Your task to perform on an android device: turn on notifications settings in the gmail app Image 0: 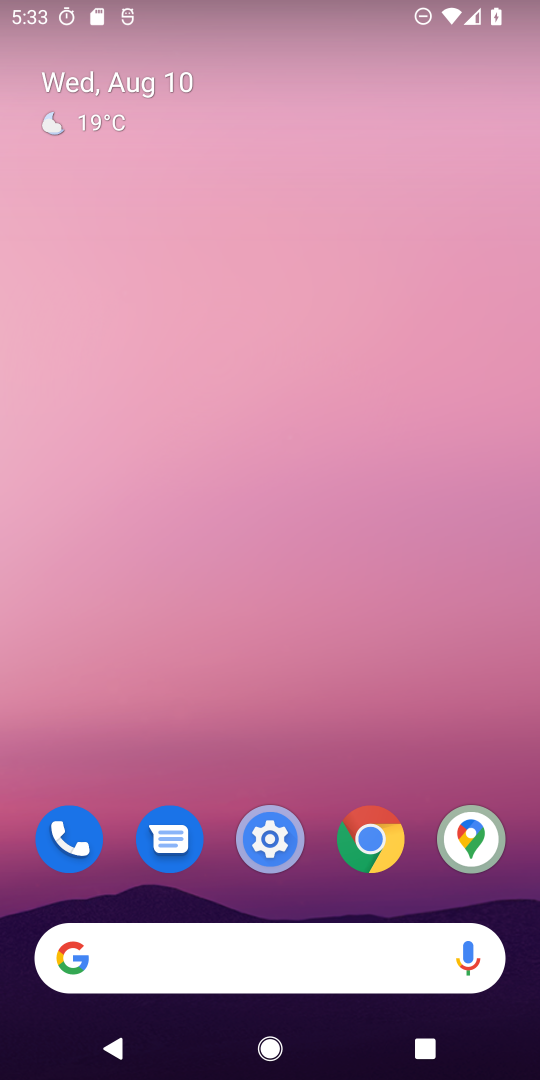
Step 0: drag from (34, 1023) to (155, 556)
Your task to perform on an android device: turn on notifications settings in the gmail app Image 1: 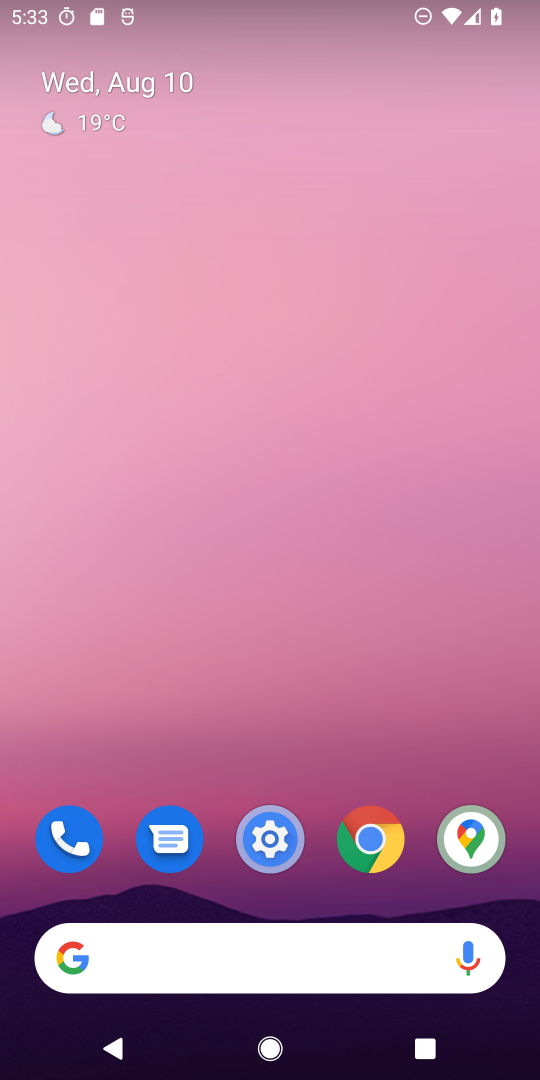
Step 1: drag from (62, 1053) to (141, 410)
Your task to perform on an android device: turn on notifications settings in the gmail app Image 2: 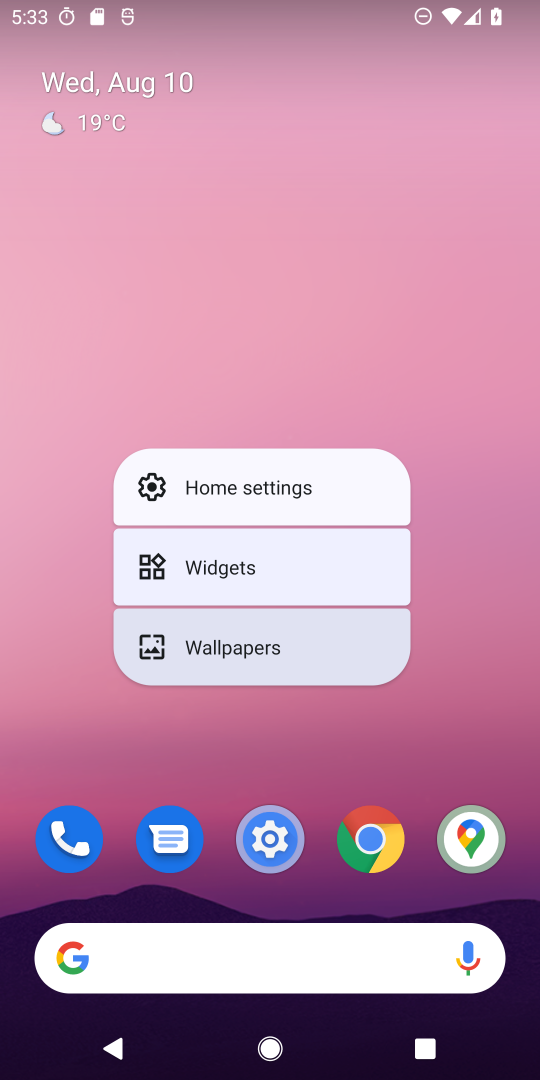
Step 2: drag from (23, 1030) to (168, 336)
Your task to perform on an android device: turn on notifications settings in the gmail app Image 3: 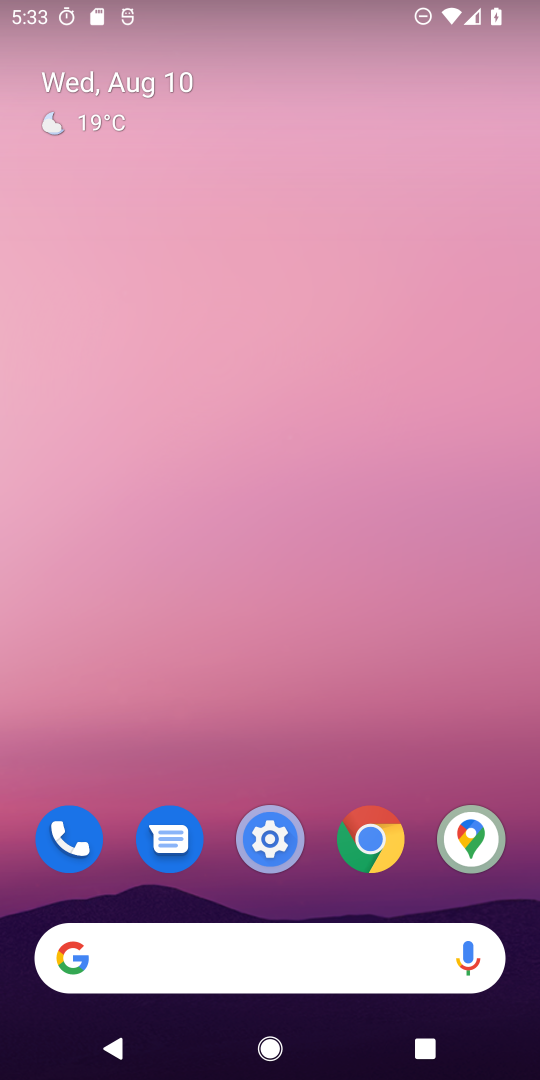
Step 3: drag from (33, 1020) to (149, 378)
Your task to perform on an android device: turn on notifications settings in the gmail app Image 4: 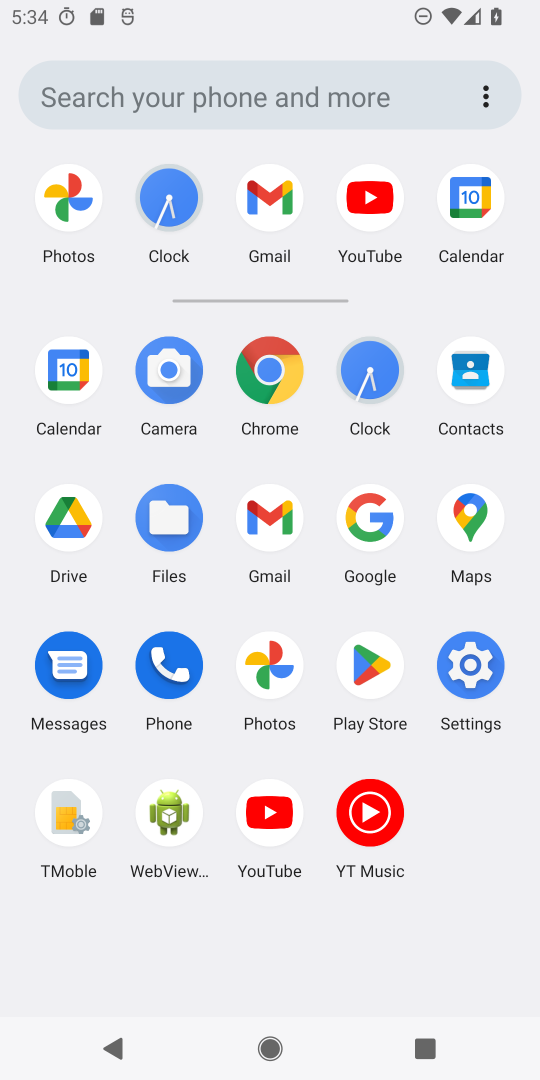
Step 4: click (270, 205)
Your task to perform on an android device: turn on notifications settings in the gmail app Image 5: 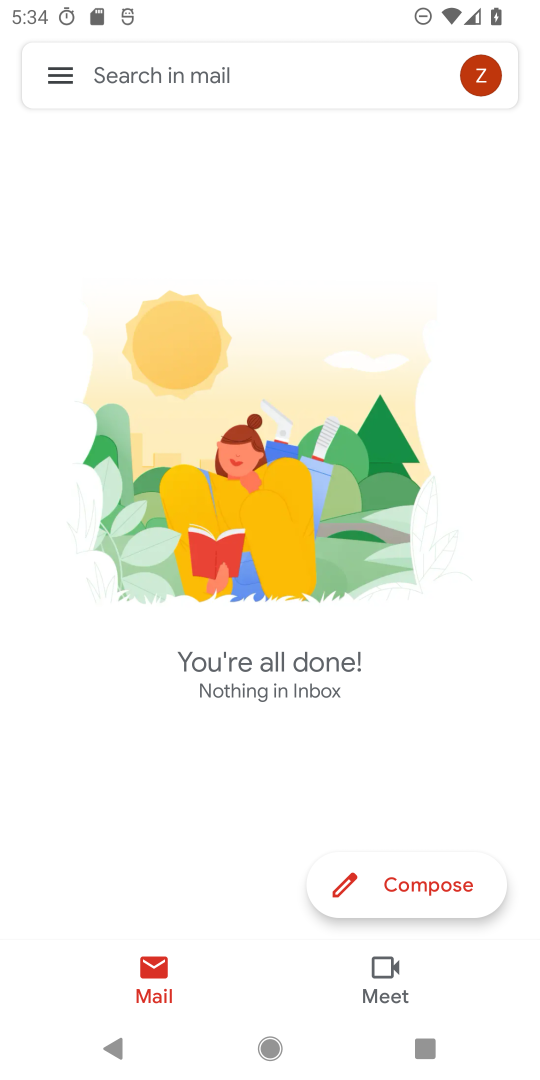
Step 5: click (67, 70)
Your task to perform on an android device: turn on notifications settings in the gmail app Image 6: 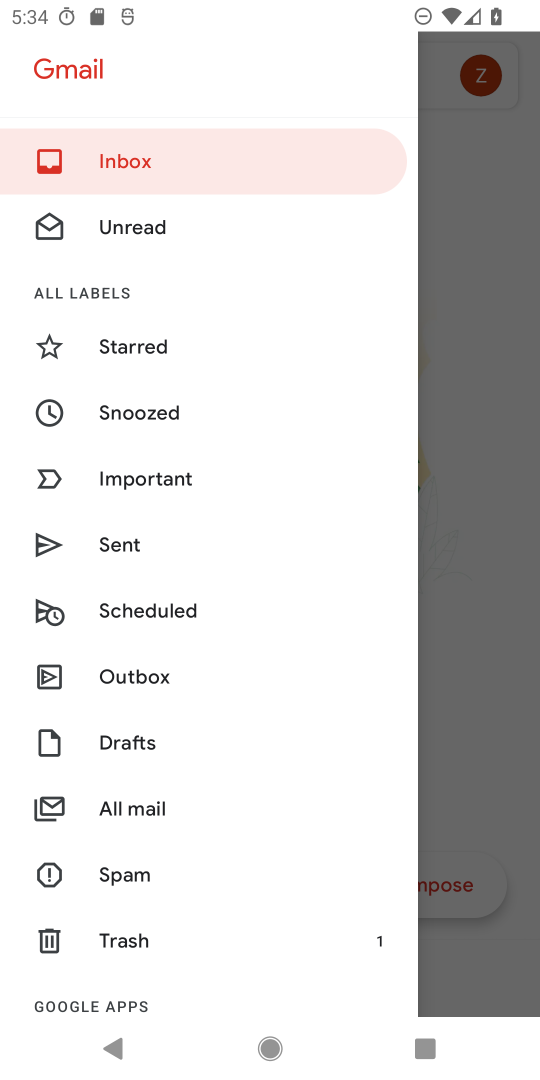
Step 6: drag from (265, 867) to (179, 300)
Your task to perform on an android device: turn on notifications settings in the gmail app Image 7: 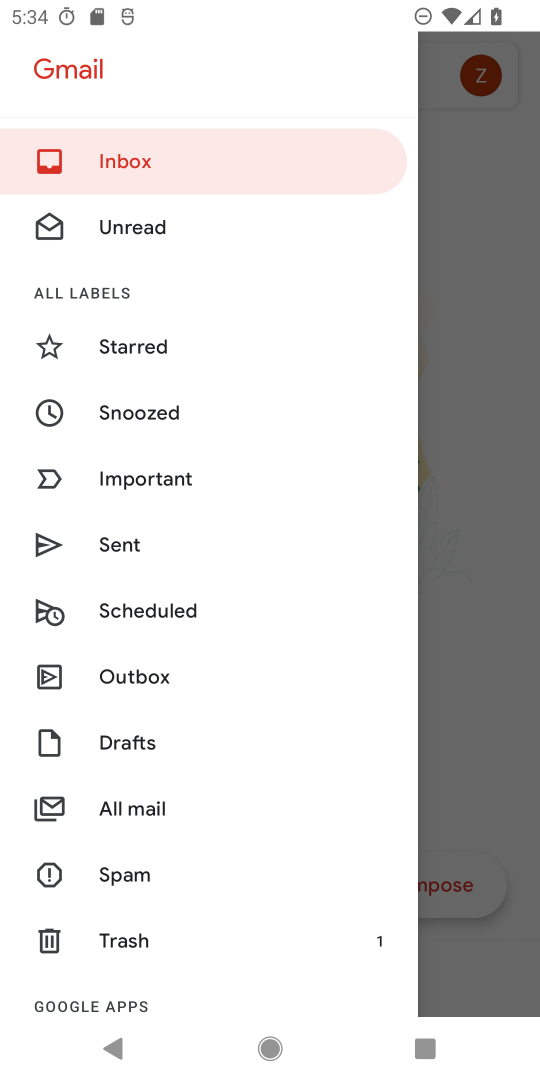
Step 7: drag from (283, 906) to (368, 440)
Your task to perform on an android device: turn on notifications settings in the gmail app Image 8: 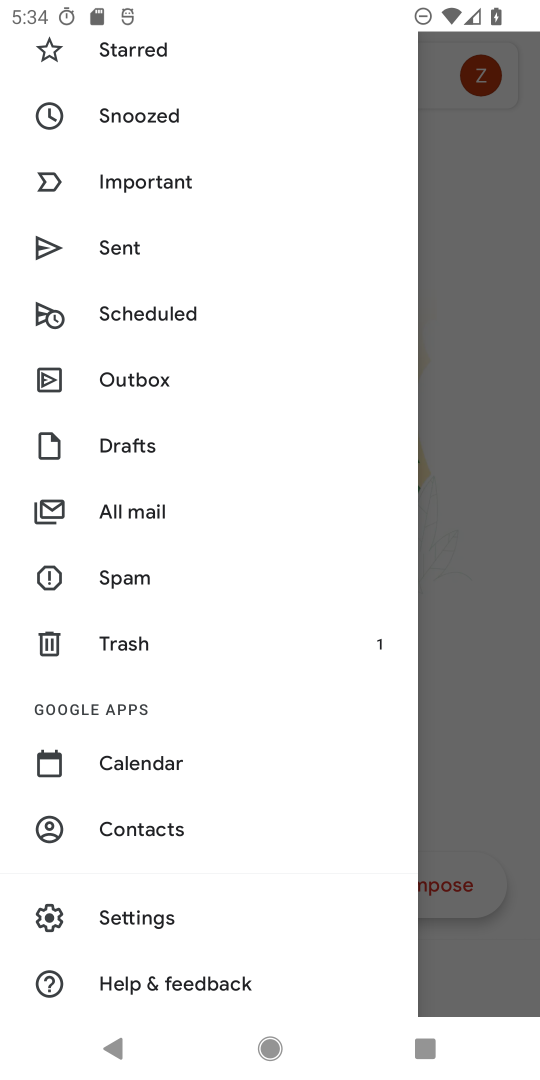
Step 8: click (148, 916)
Your task to perform on an android device: turn on notifications settings in the gmail app Image 9: 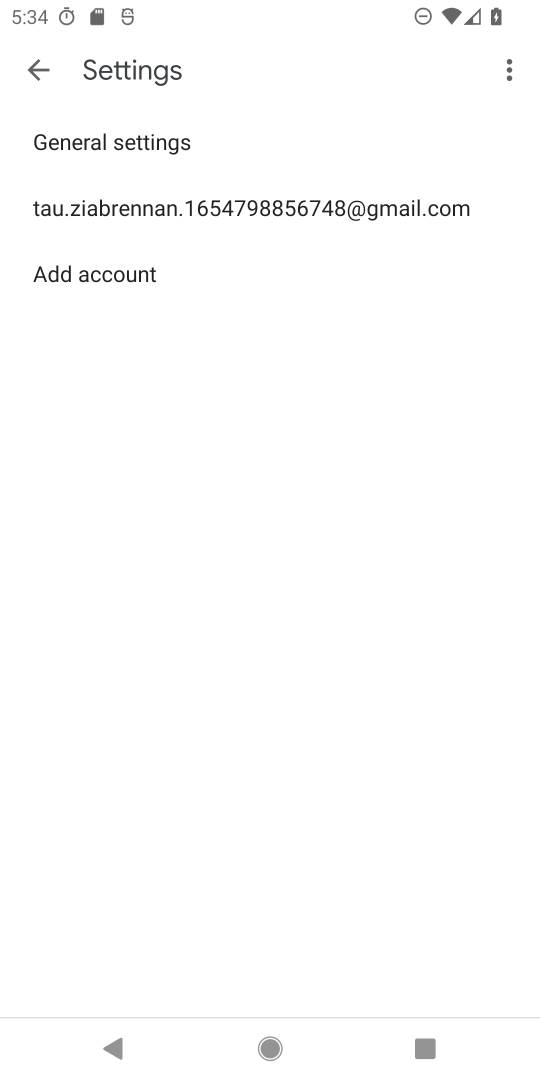
Step 9: click (270, 215)
Your task to perform on an android device: turn on notifications settings in the gmail app Image 10: 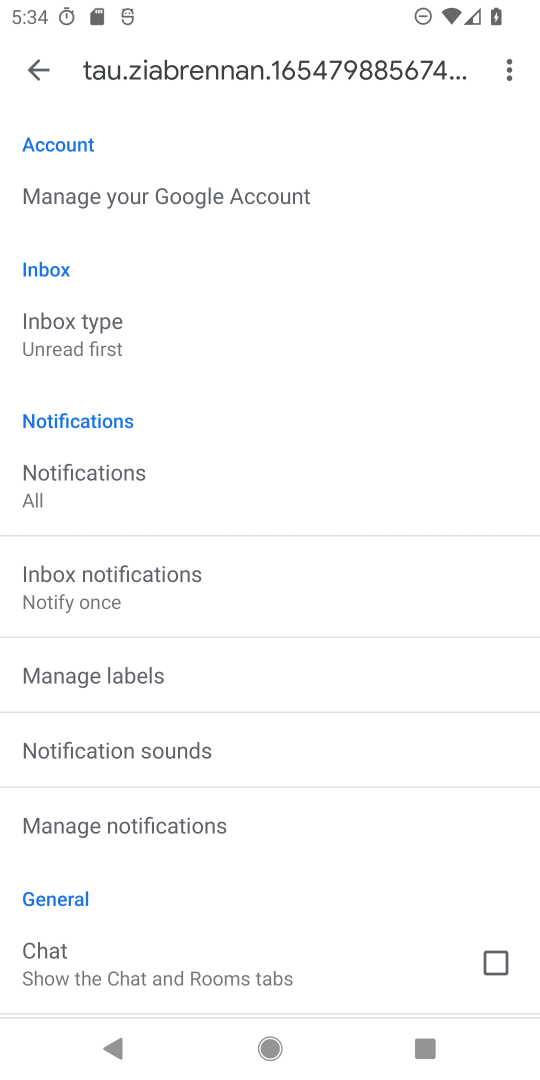
Step 10: click (147, 573)
Your task to perform on an android device: turn on notifications settings in the gmail app Image 11: 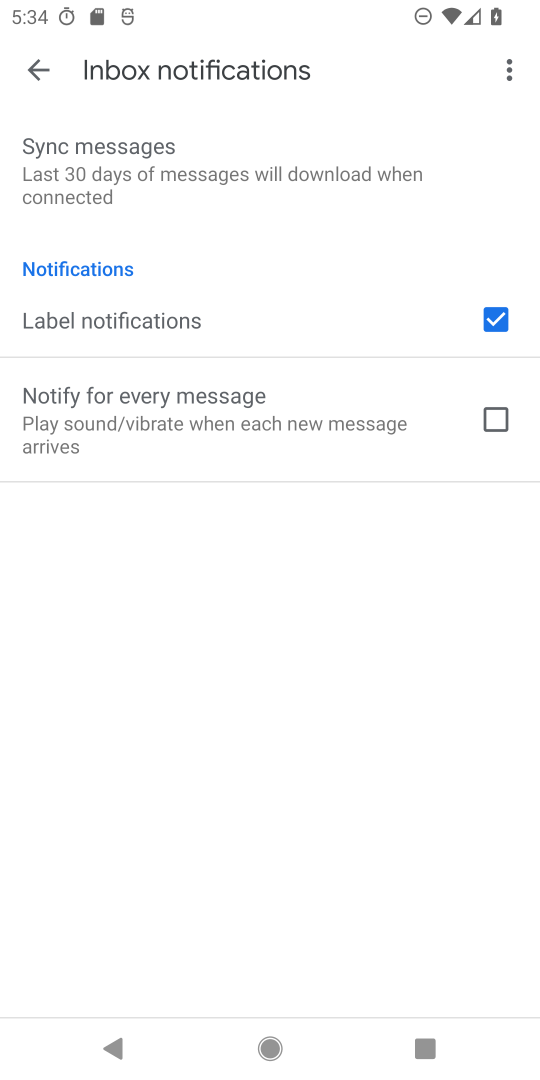
Step 11: task complete